Your task to perform on an android device: Add "macbook air" to the cart on costco Image 0: 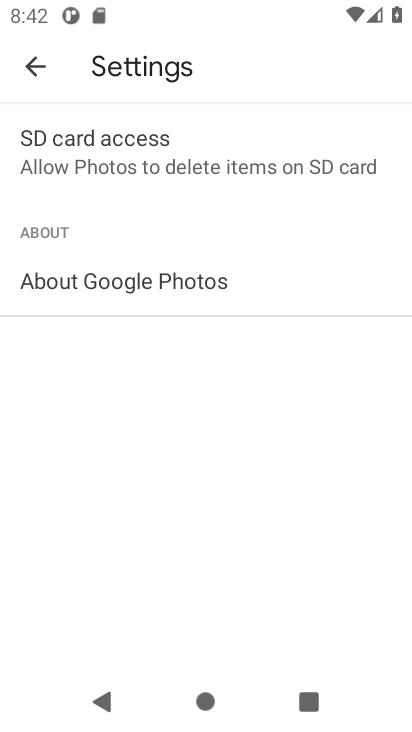
Step 0: press home button
Your task to perform on an android device: Add "macbook air" to the cart on costco Image 1: 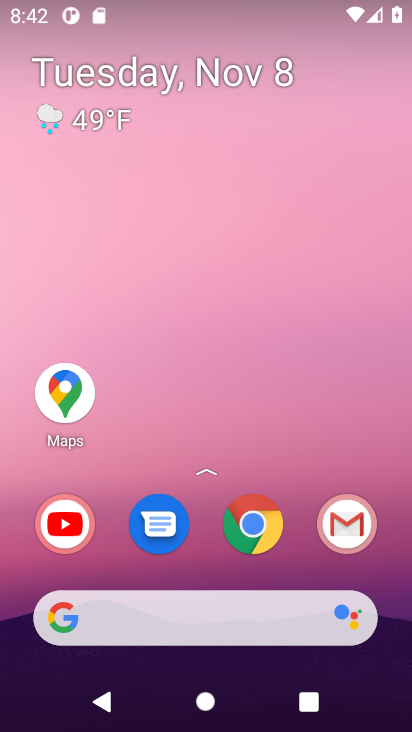
Step 1: click (253, 527)
Your task to perform on an android device: Add "macbook air" to the cart on costco Image 2: 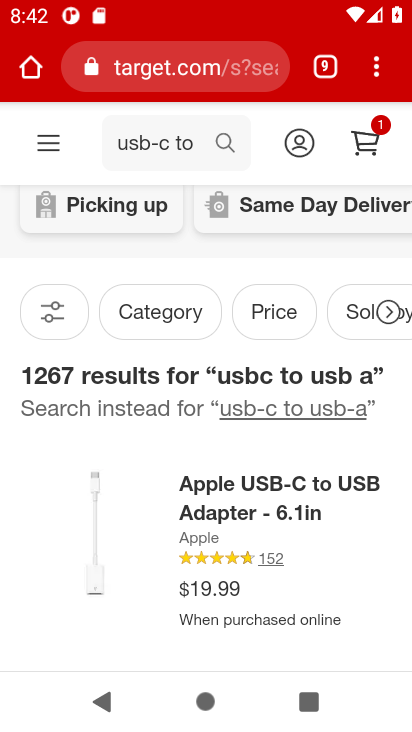
Step 2: click (155, 75)
Your task to perform on an android device: Add "macbook air" to the cart on costco Image 3: 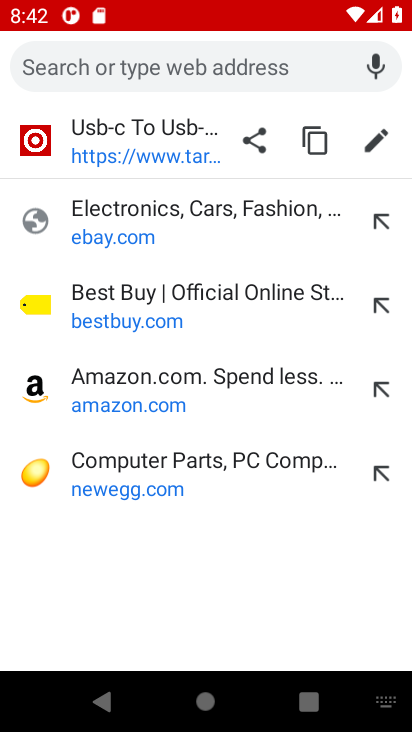
Step 3: type "costco.com"
Your task to perform on an android device: Add "macbook air" to the cart on costco Image 4: 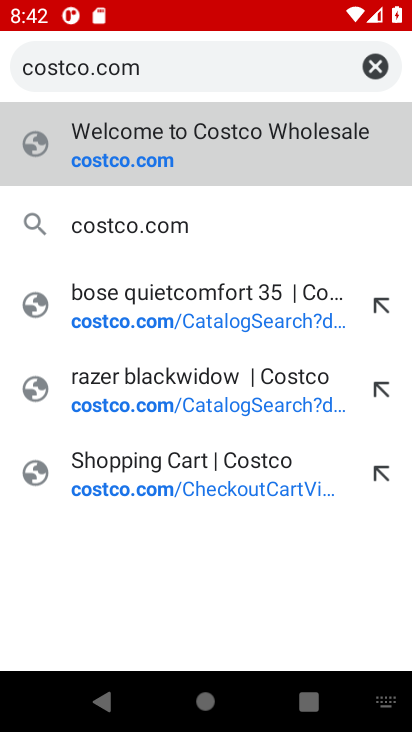
Step 4: click (142, 166)
Your task to perform on an android device: Add "macbook air" to the cart on costco Image 5: 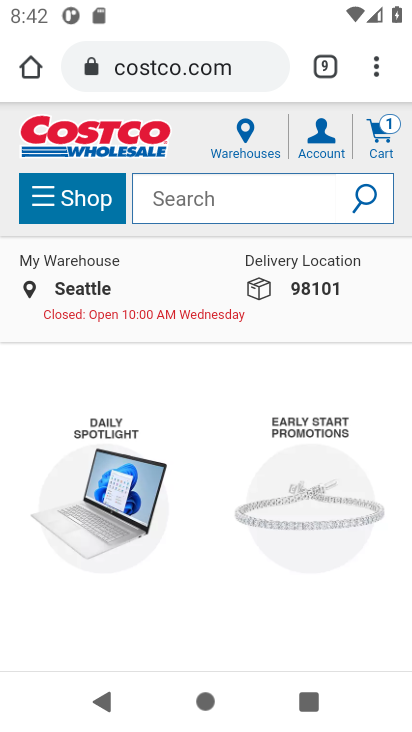
Step 5: click (193, 205)
Your task to perform on an android device: Add "macbook air" to the cart on costco Image 6: 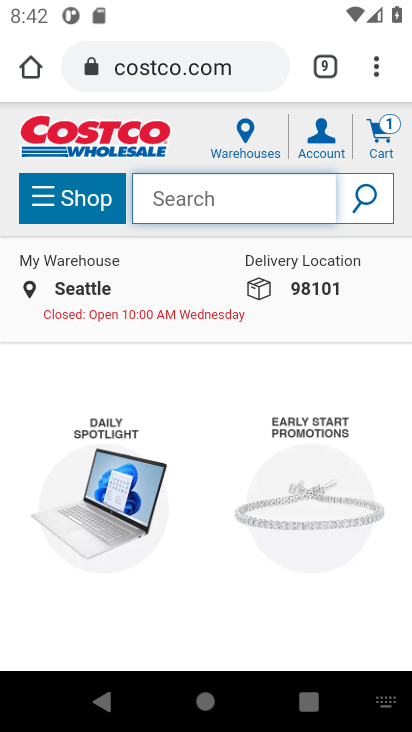
Step 6: type "macbook air"
Your task to perform on an android device: Add "macbook air" to the cart on costco Image 7: 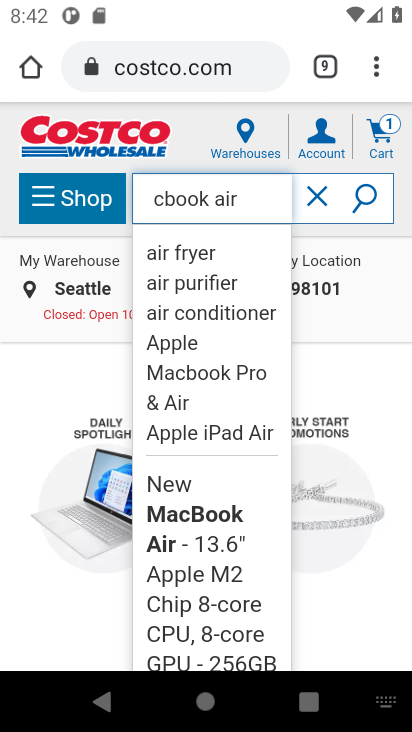
Step 7: click (360, 205)
Your task to perform on an android device: Add "macbook air" to the cart on costco Image 8: 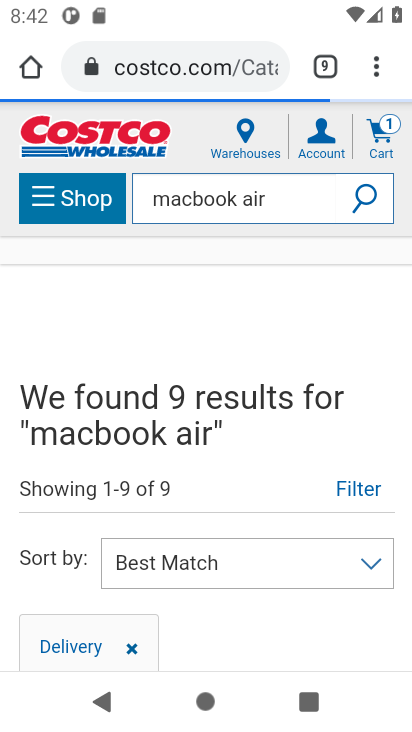
Step 8: drag from (219, 462) to (211, 156)
Your task to perform on an android device: Add "macbook air" to the cart on costco Image 9: 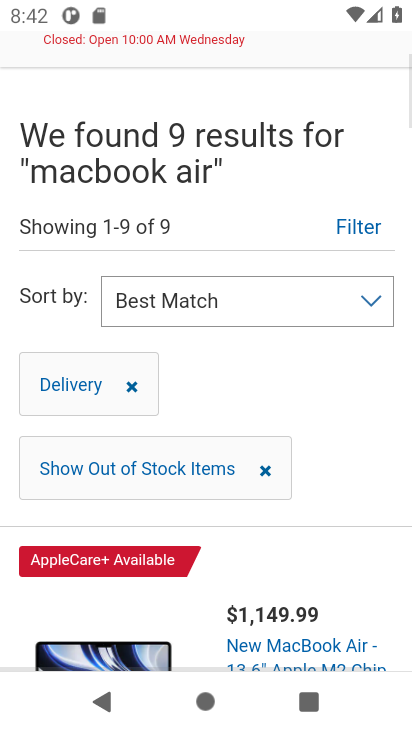
Step 9: drag from (214, 495) to (208, 203)
Your task to perform on an android device: Add "macbook air" to the cart on costco Image 10: 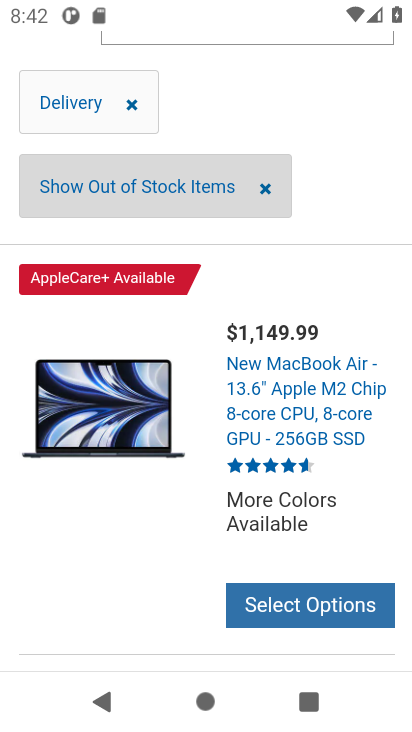
Step 10: click (225, 424)
Your task to perform on an android device: Add "macbook air" to the cart on costco Image 11: 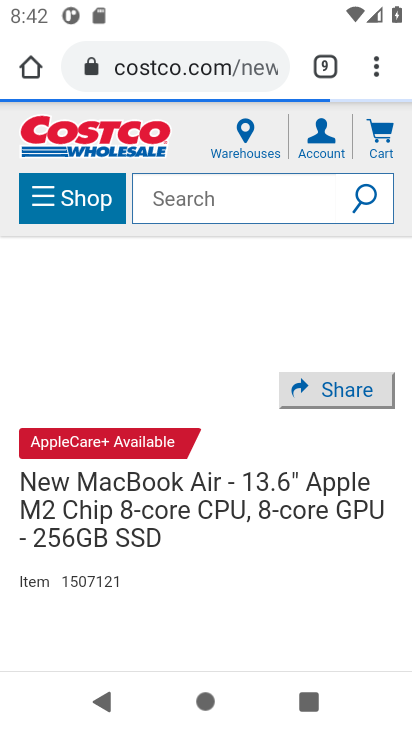
Step 11: drag from (215, 539) to (220, 184)
Your task to perform on an android device: Add "macbook air" to the cart on costco Image 12: 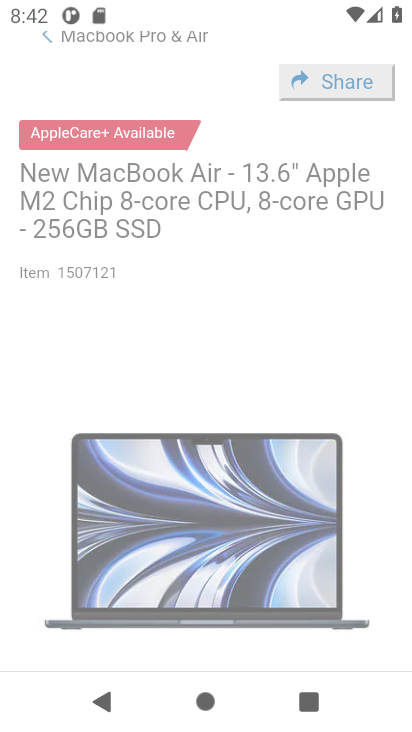
Step 12: drag from (236, 399) to (234, 146)
Your task to perform on an android device: Add "macbook air" to the cart on costco Image 13: 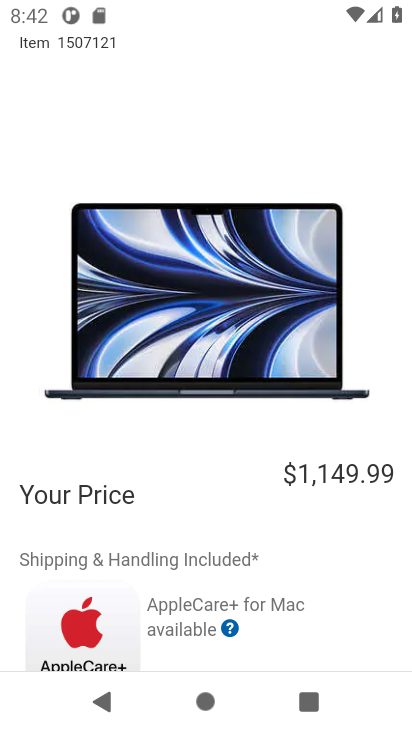
Step 13: drag from (232, 479) to (232, 218)
Your task to perform on an android device: Add "macbook air" to the cart on costco Image 14: 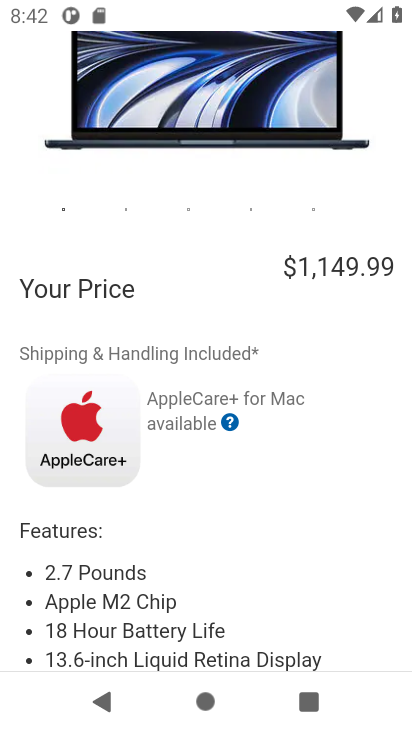
Step 14: drag from (217, 448) to (241, 134)
Your task to perform on an android device: Add "macbook air" to the cart on costco Image 15: 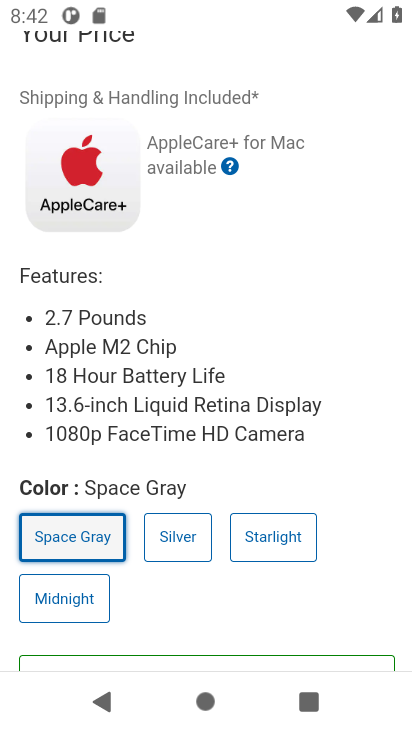
Step 15: drag from (230, 400) to (226, 124)
Your task to perform on an android device: Add "macbook air" to the cart on costco Image 16: 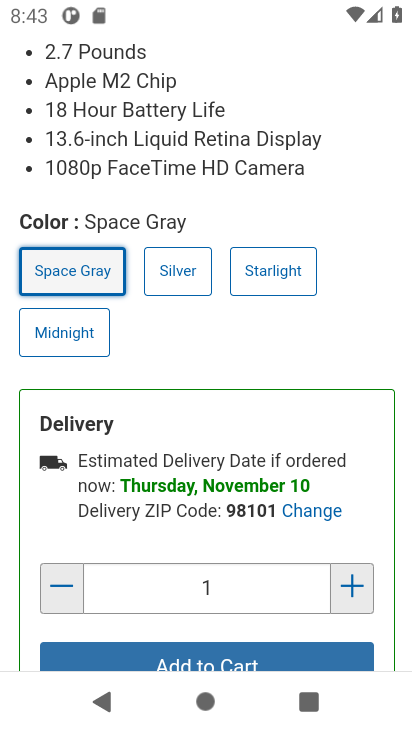
Step 16: drag from (204, 430) to (224, 208)
Your task to perform on an android device: Add "macbook air" to the cart on costco Image 17: 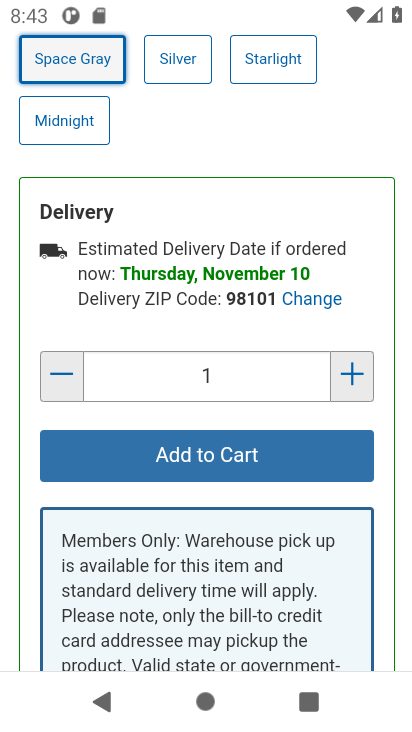
Step 17: click (226, 449)
Your task to perform on an android device: Add "macbook air" to the cart on costco Image 18: 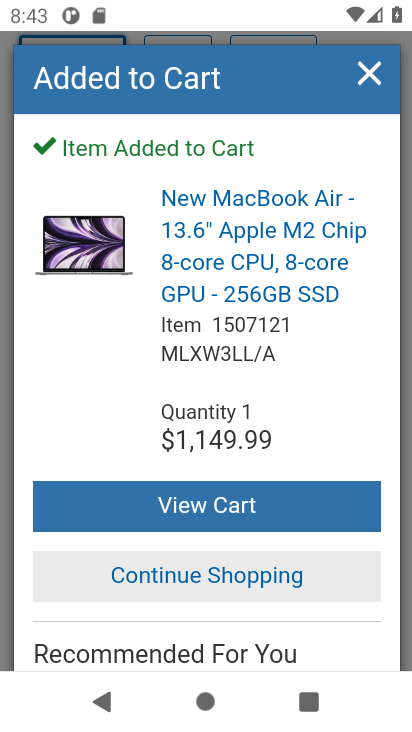
Step 18: task complete